Your task to perform on an android device: find snoozed emails in the gmail app Image 0: 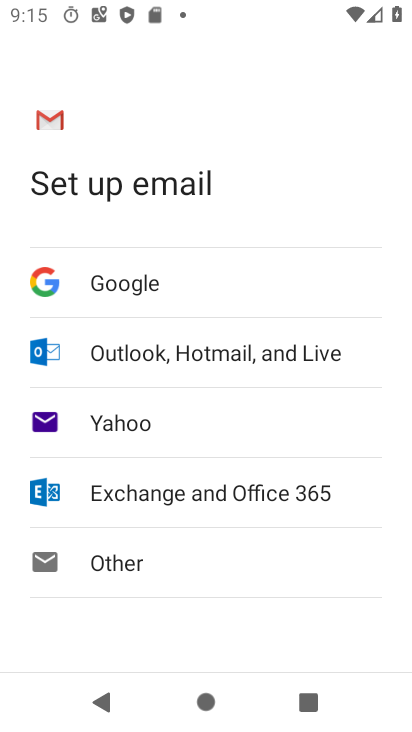
Step 0: press home button
Your task to perform on an android device: find snoozed emails in the gmail app Image 1: 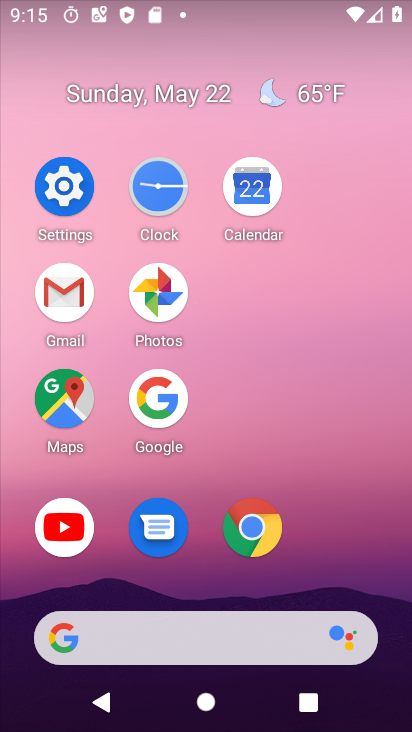
Step 1: click (77, 302)
Your task to perform on an android device: find snoozed emails in the gmail app Image 2: 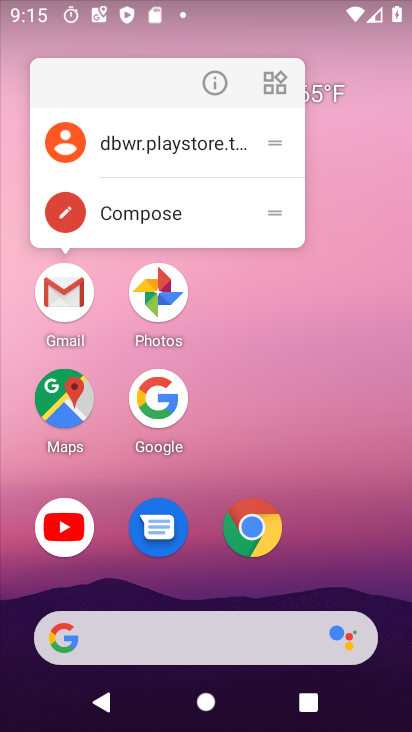
Step 2: click (65, 272)
Your task to perform on an android device: find snoozed emails in the gmail app Image 3: 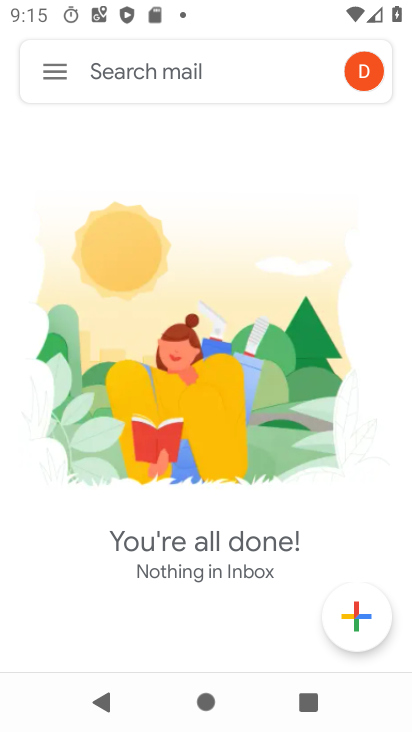
Step 3: click (57, 89)
Your task to perform on an android device: find snoozed emails in the gmail app Image 4: 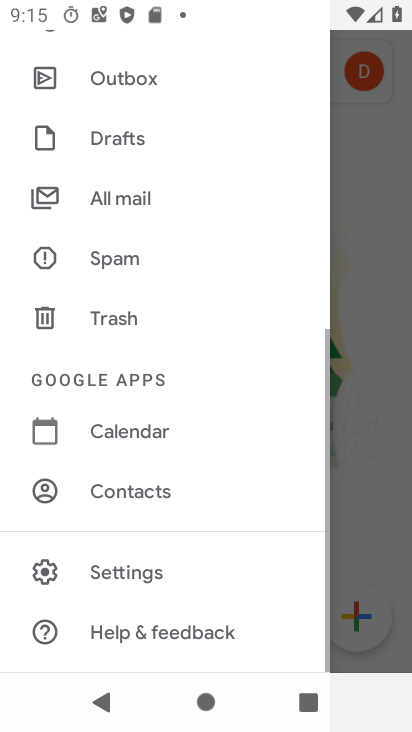
Step 4: drag from (227, 262) to (229, 623)
Your task to perform on an android device: find snoozed emails in the gmail app Image 5: 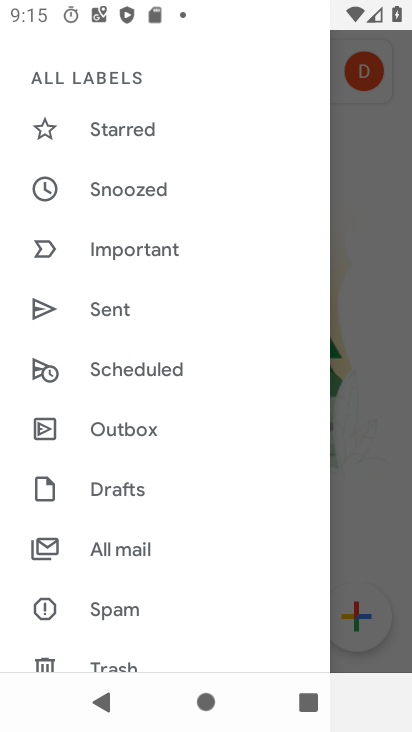
Step 5: click (163, 194)
Your task to perform on an android device: find snoozed emails in the gmail app Image 6: 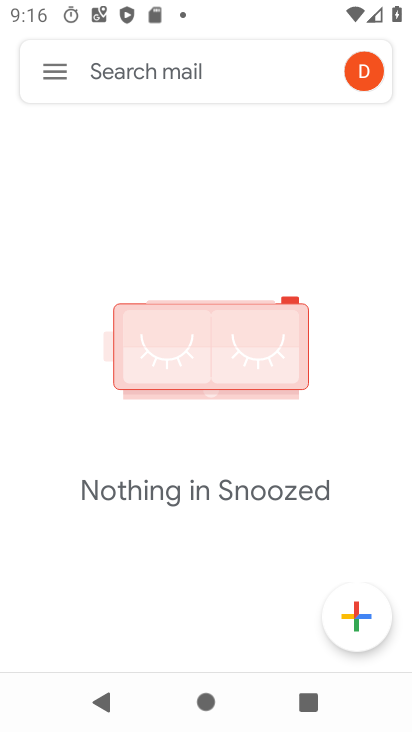
Step 6: task complete